Your task to perform on an android device: see creations saved in the google photos Image 0: 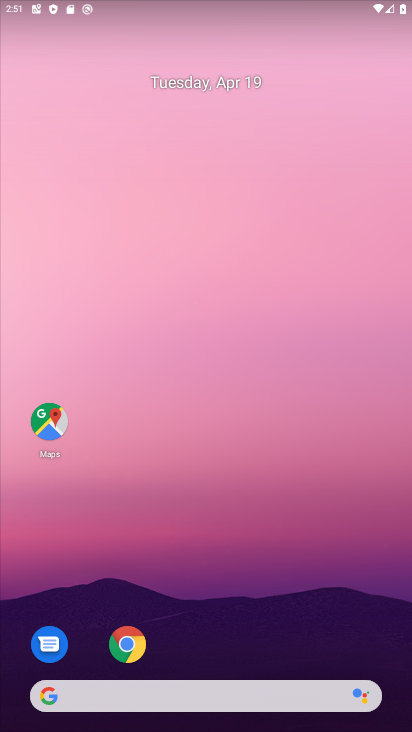
Step 0: drag from (300, 620) to (250, 170)
Your task to perform on an android device: see creations saved in the google photos Image 1: 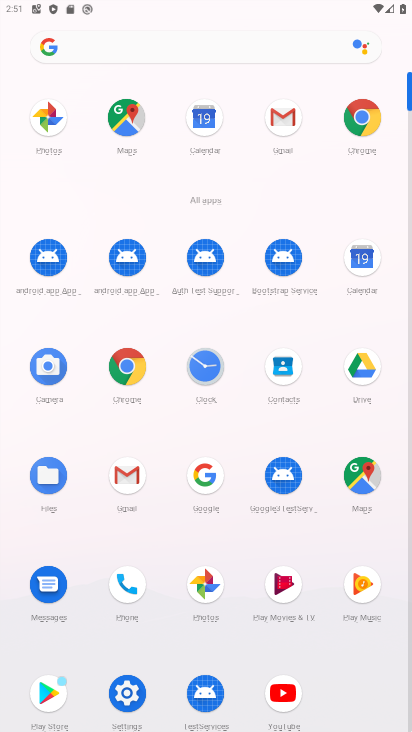
Step 1: click (207, 589)
Your task to perform on an android device: see creations saved in the google photos Image 2: 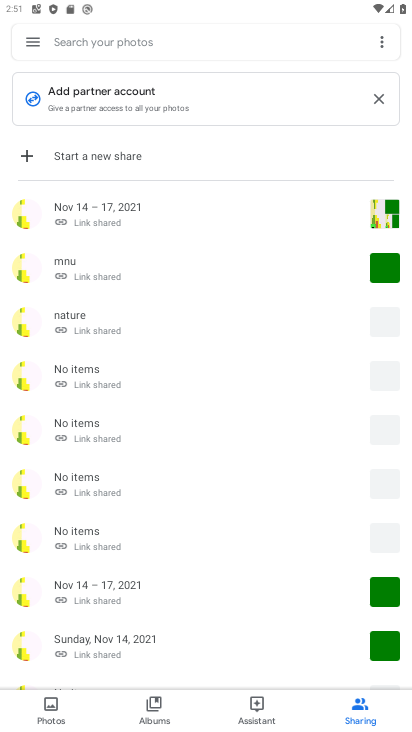
Step 2: click (145, 722)
Your task to perform on an android device: see creations saved in the google photos Image 3: 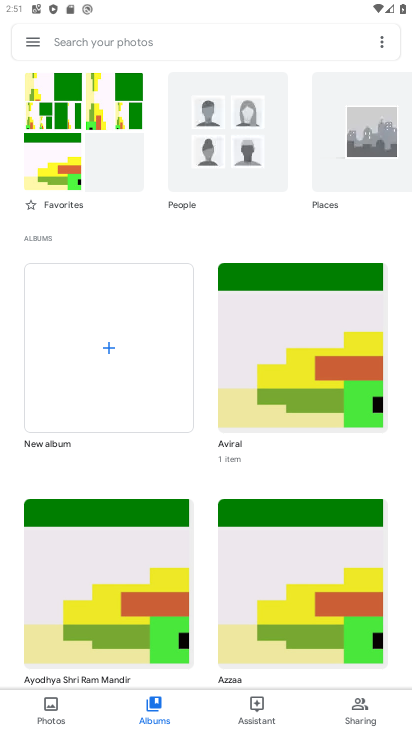
Step 3: click (31, 703)
Your task to perform on an android device: see creations saved in the google photos Image 4: 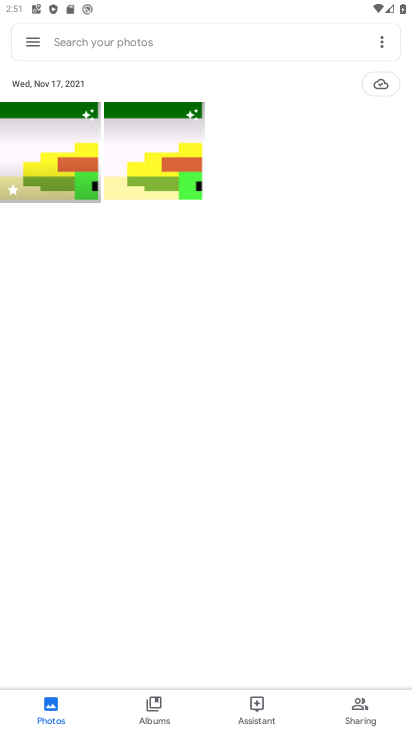
Step 4: click (23, 45)
Your task to perform on an android device: see creations saved in the google photos Image 5: 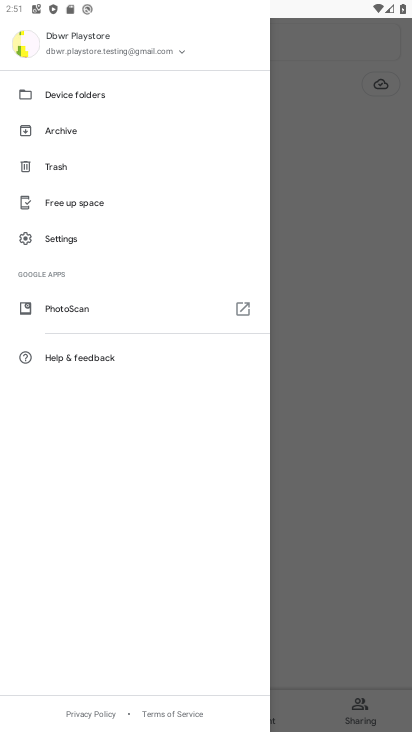
Step 5: task complete